Your task to perform on an android device: change notification settings in the gmail app Image 0: 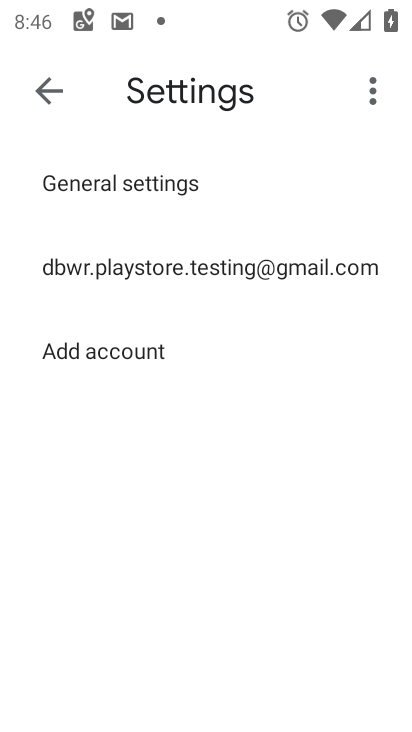
Step 0: press home button
Your task to perform on an android device: change notification settings in the gmail app Image 1: 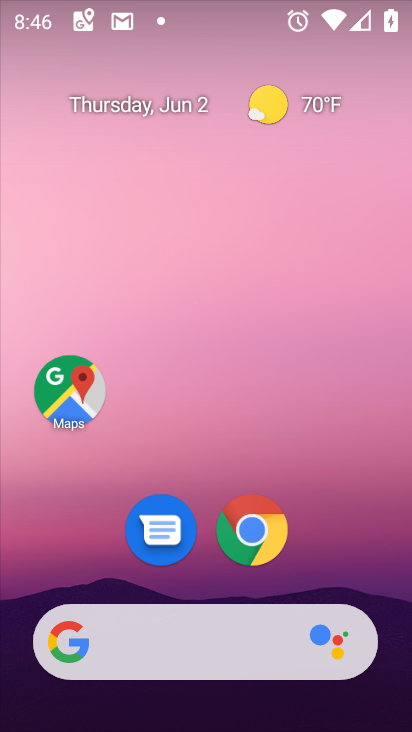
Step 1: drag from (179, 602) to (182, 298)
Your task to perform on an android device: change notification settings in the gmail app Image 2: 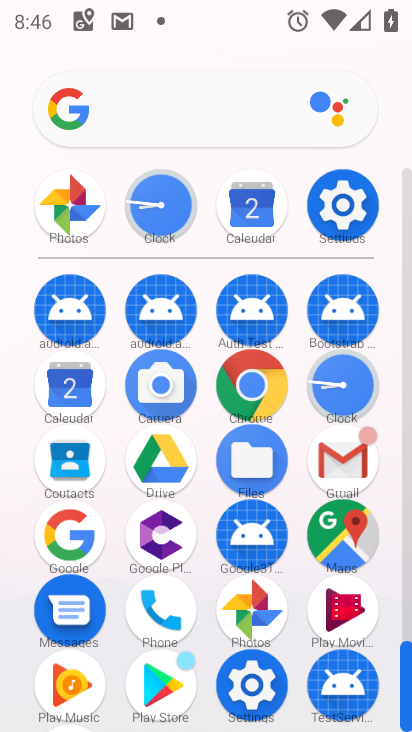
Step 2: click (351, 460)
Your task to perform on an android device: change notification settings in the gmail app Image 3: 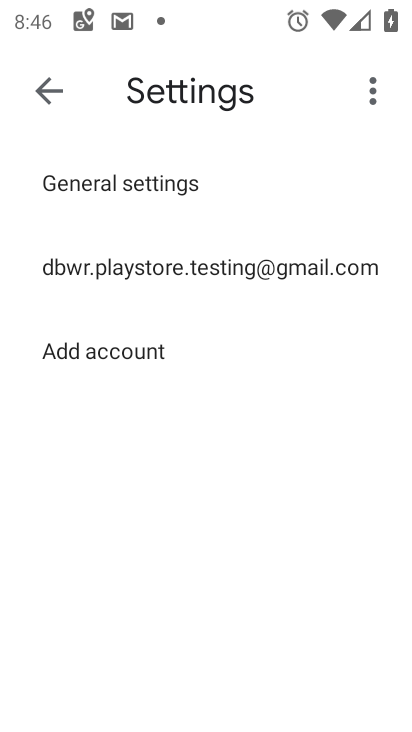
Step 3: click (75, 277)
Your task to perform on an android device: change notification settings in the gmail app Image 4: 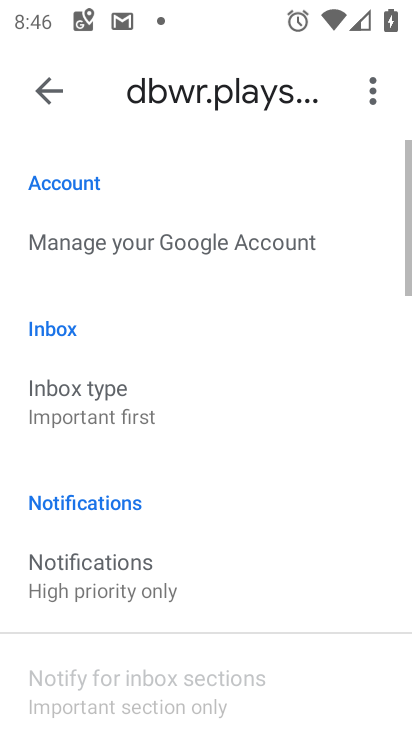
Step 4: click (85, 406)
Your task to perform on an android device: change notification settings in the gmail app Image 5: 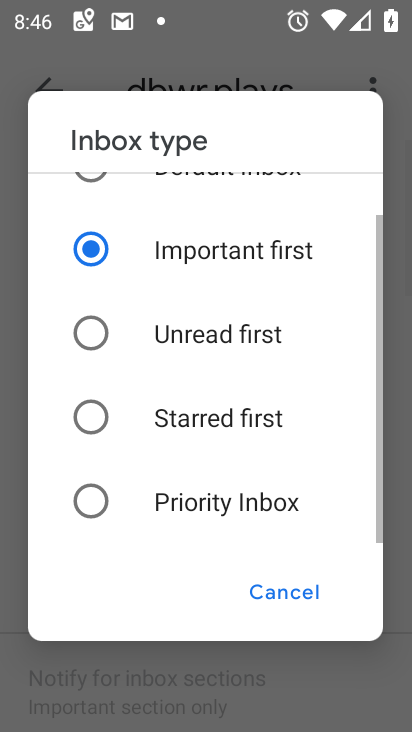
Step 5: click (262, 598)
Your task to perform on an android device: change notification settings in the gmail app Image 6: 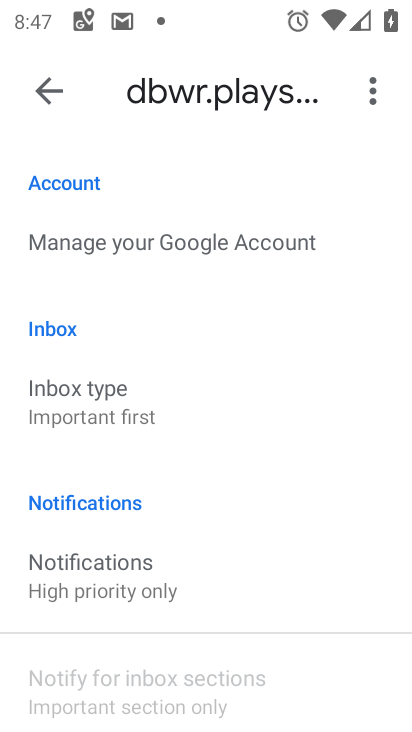
Step 6: click (65, 582)
Your task to perform on an android device: change notification settings in the gmail app Image 7: 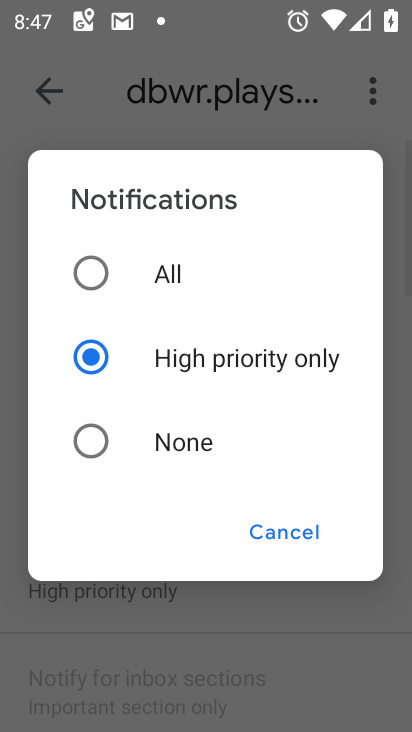
Step 7: click (150, 443)
Your task to perform on an android device: change notification settings in the gmail app Image 8: 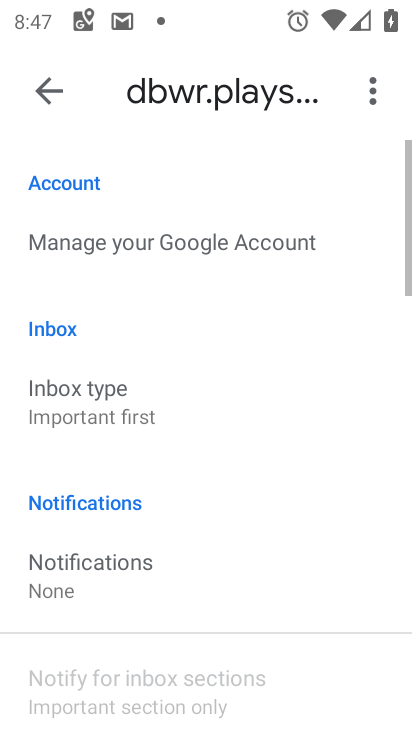
Step 8: task complete